Your task to perform on an android device: toggle priority inbox in the gmail app Image 0: 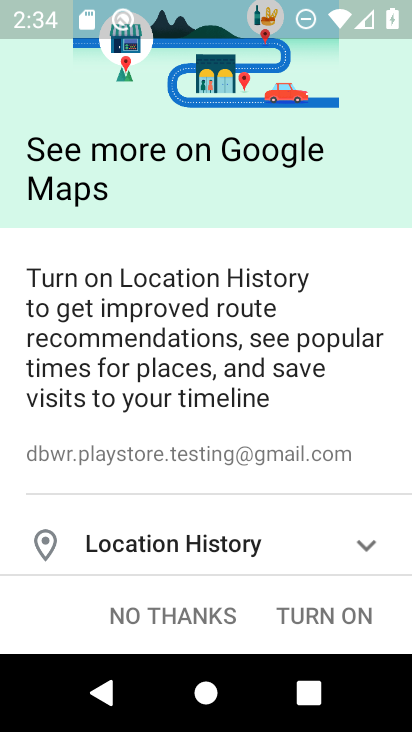
Step 0: press home button
Your task to perform on an android device: toggle priority inbox in the gmail app Image 1: 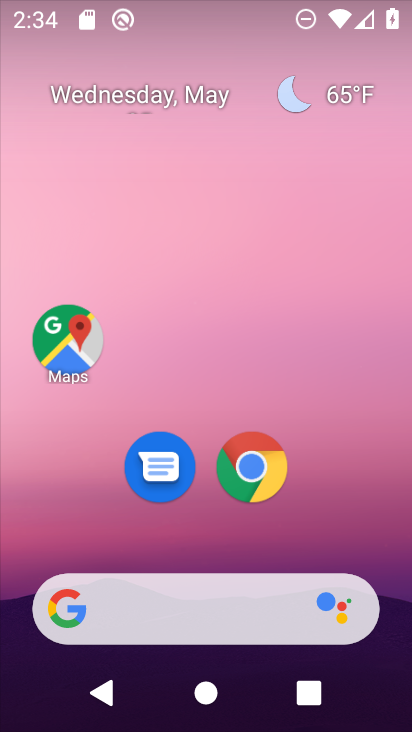
Step 1: drag from (345, 433) to (347, 237)
Your task to perform on an android device: toggle priority inbox in the gmail app Image 2: 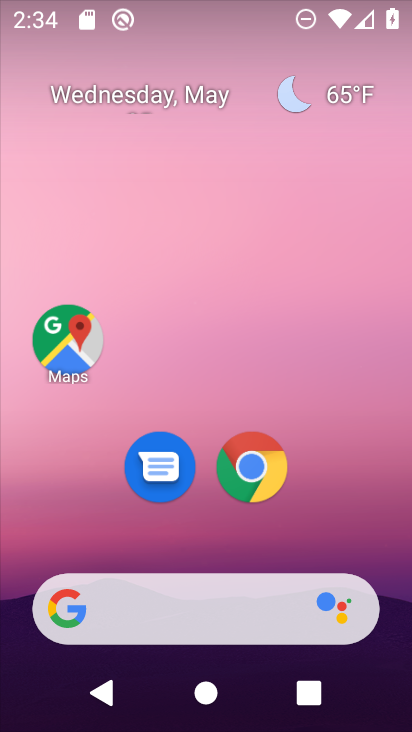
Step 2: drag from (269, 567) to (239, 184)
Your task to perform on an android device: toggle priority inbox in the gmail app Image 3: 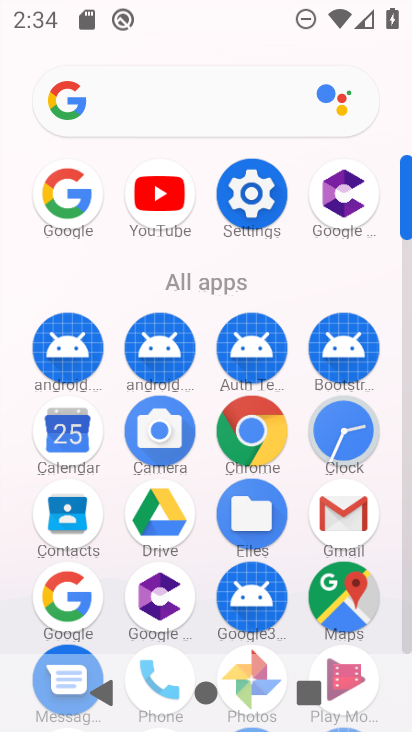
Step 3: click (338, 501)
Your task to perform on an android device: toggle priority inbox in the gmail app Image 4: 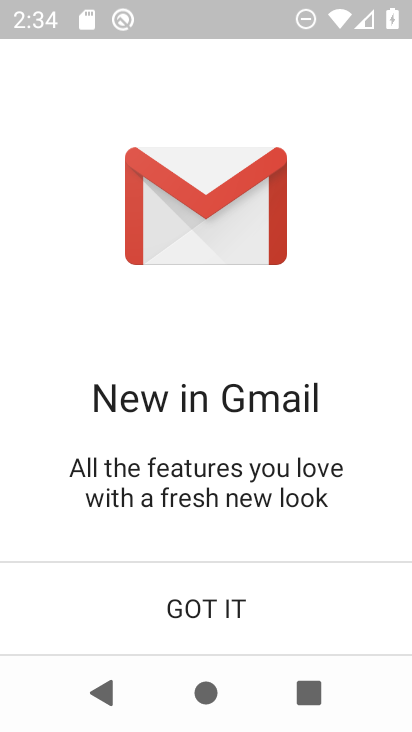
Step 4: click (207, 586)
Your task to perform on an android device: toggle priority inbox in the gmail app Image 5: 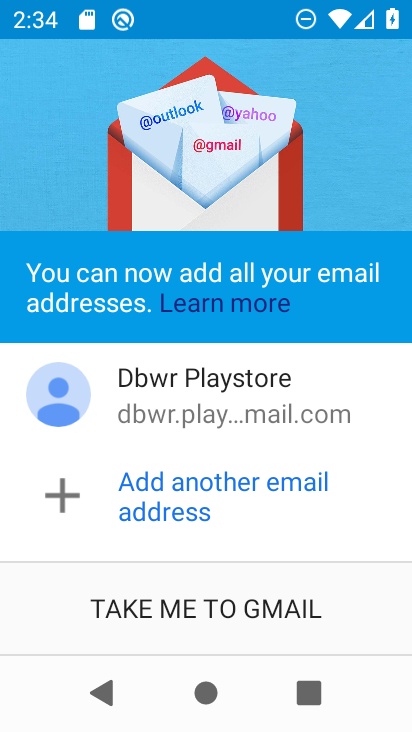
Step 5: click (193, 601)
Your task to perform on an android device: toggle priority inbox in the gmail app Image 6: 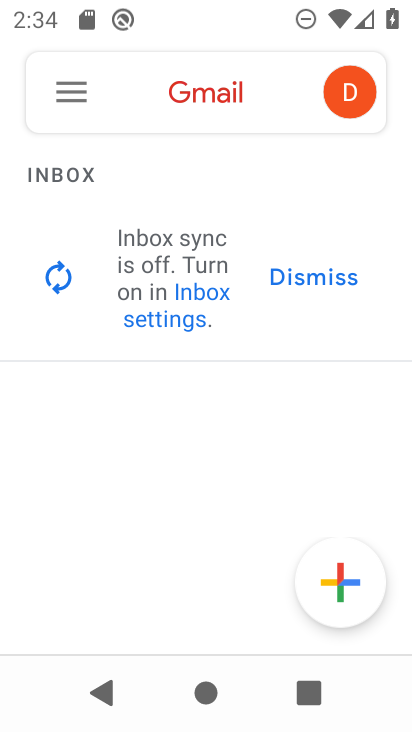
Step 6: click (66, 91)
Your task to perform on an android device: toggle priority inbox in the gmail app Image 7: 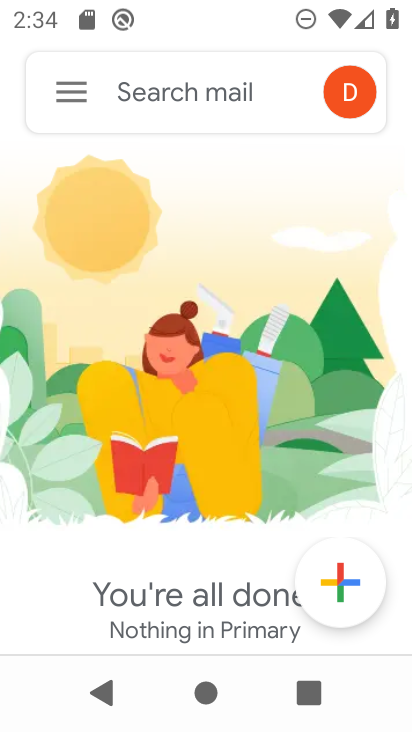
Step 7: click (56, 73)
Your task to perform on an android device: toggle priority inbox in the gmail app Image 8: 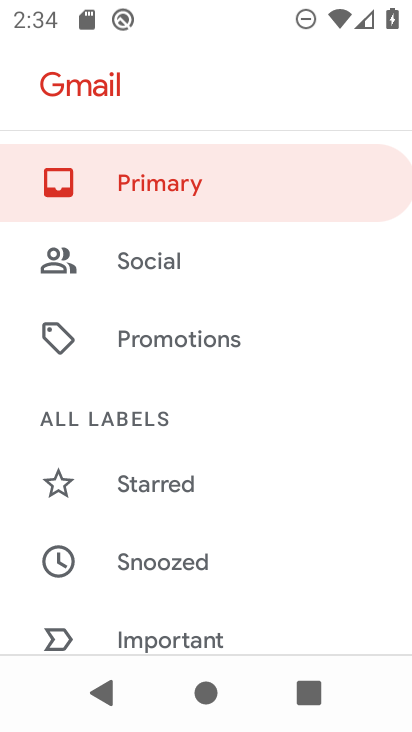
Step 8: drag from (206, 580) to (229, 207)
Your task to perform on an android device: toggle priority inbox in the gmail app Image 9: 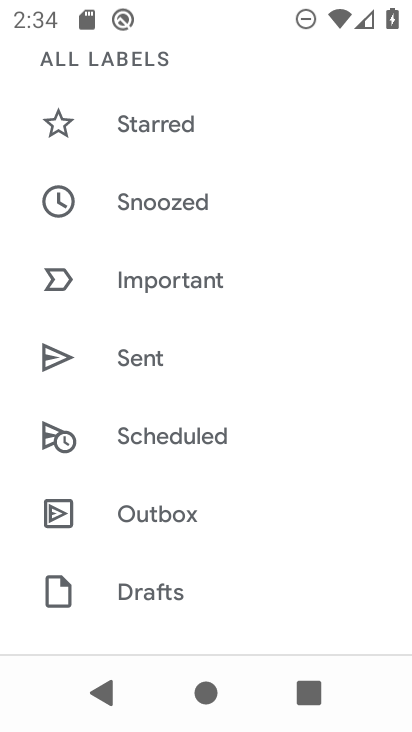
Step 9: drag from (169, 615) to (206, 204)
Your task to perform on an android device: toggle priority inbox in the gmail app Image 10: 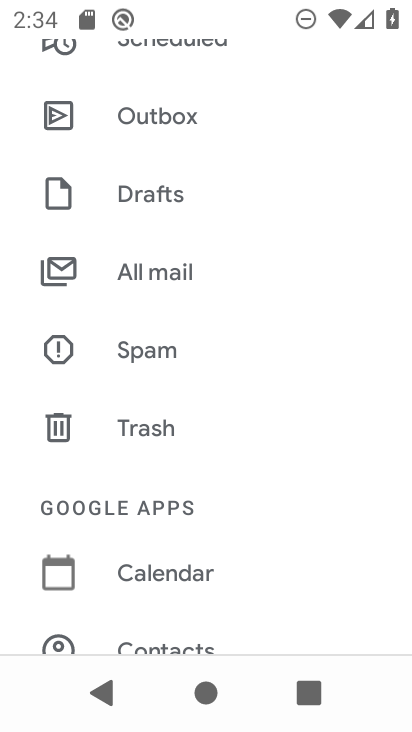
Step 10: drag from (201, 551) to (202, 217)
Your task to perform on an android device: toggle priority inbox in the gmail app Image 11: 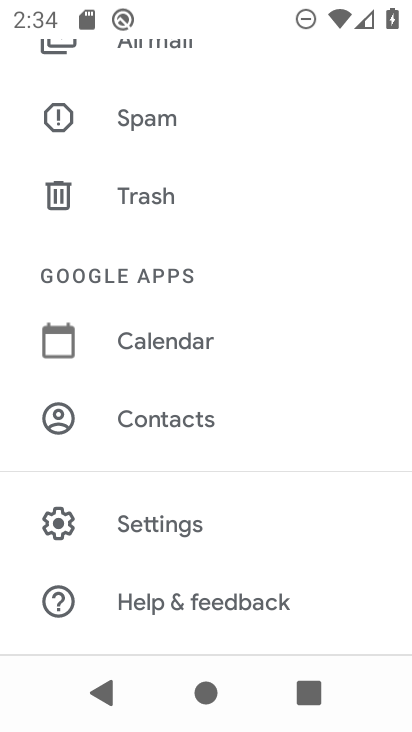
Step 11: click (178, 532)
Your task to perform on an android device: toggle priority inbox in the gmail app Image 12: 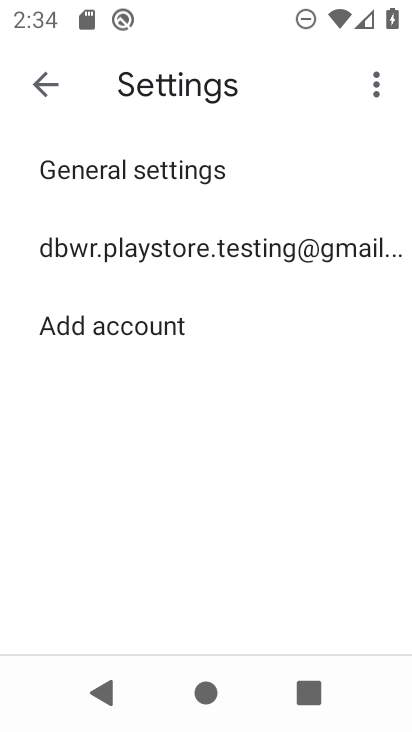
Step 12: click (120, 229)
Your task to perform on an android device: toggle priority inbox in the gmail app Image 13: 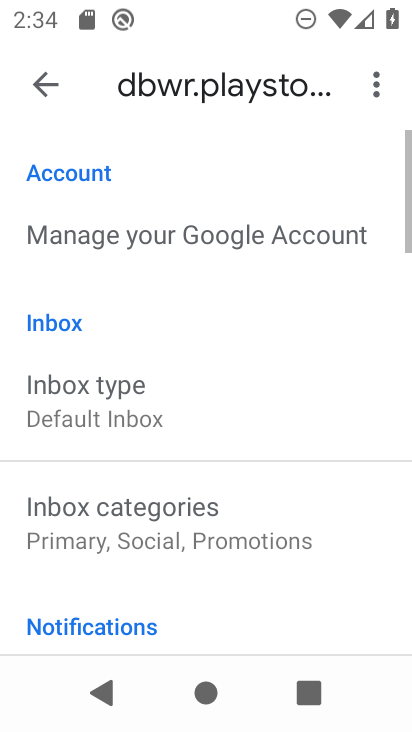
Step 13: click (139, 434)
Your task to perform on an android device: toggle priority inbox in the gmail app Image 14: 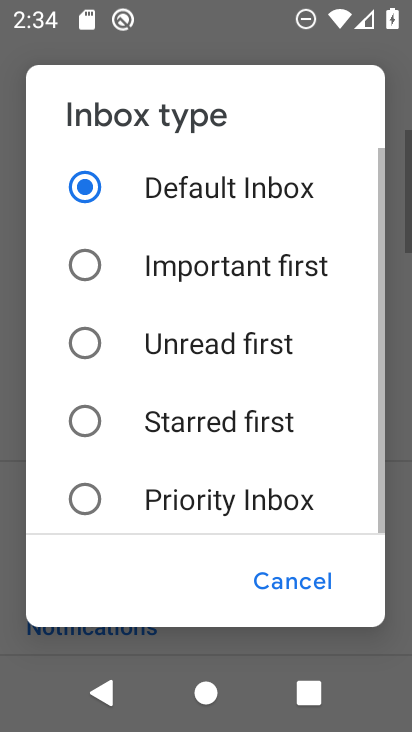
Step 14: click (145, 507)
Your task to perform on an android device: toggle priority inbox in the gmail app Image 15: 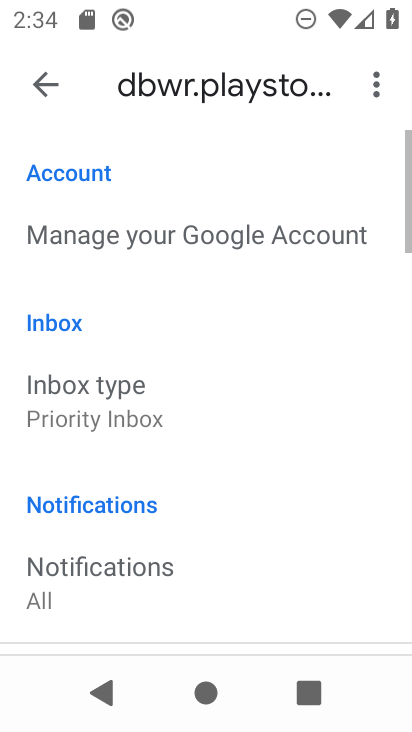
Step 15: task complete